Your task to perform on an android device: Search for the best rated coffee table on Target. Image 0: 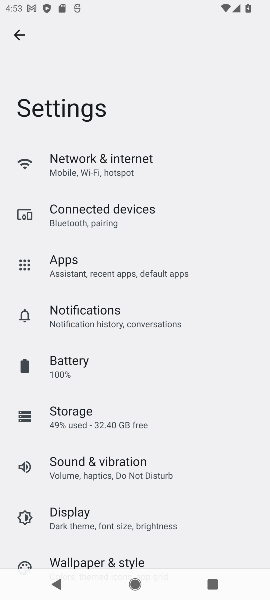
Step 0: press home button
Your task to perform on an android device: Search for the best rated coffee table on Target. Image 1: 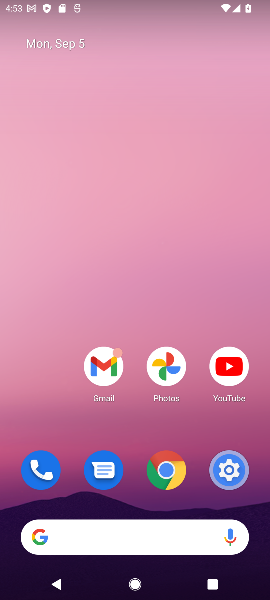
Step 1: click (176, 479)
Your task to perform on an android device: Search for the best rated coffee table on Target. Image 2: 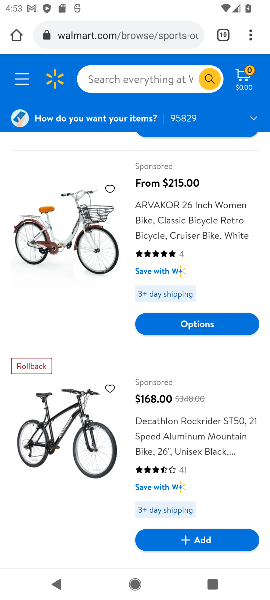
Step 2: click (103, 28)
Your task to perform on an android device: Search for the best rated coffee table on Target. Image 3: 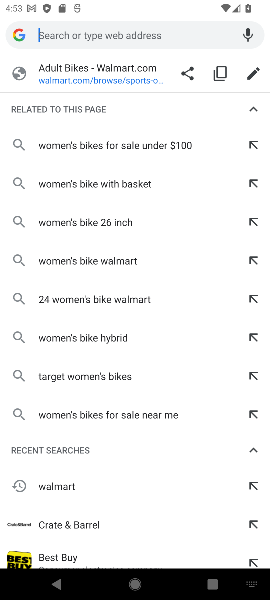
Step 3: type "target"
Your task to perform on an android device: Search for the best rated coffee table on Target. Image 4: 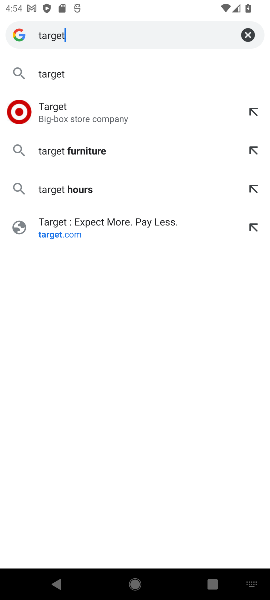
Step 4: click (80, 223)
Your task to perform on an android device: Search for the best rated coffee table on Target. Image 5: 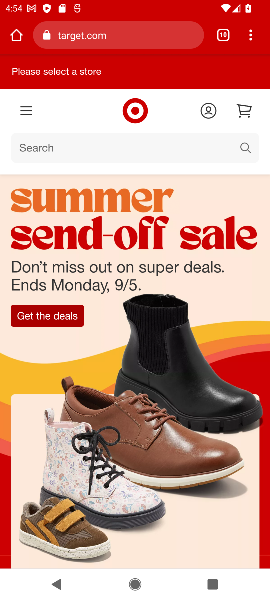
Step 5: click (99, 147)
Your task to perform on an android device: Search for the best rated coffee table on Target. Image 6: 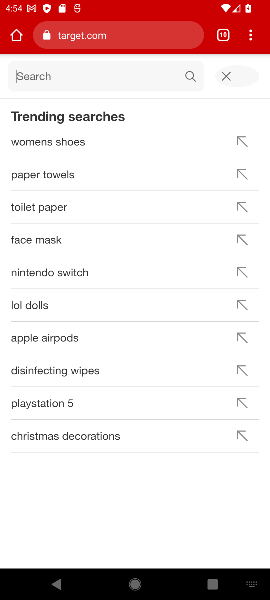
Step 6: type "coffee table"
Your task to perform on an android device: Search for the best rated coffee table on Target. Image 7: 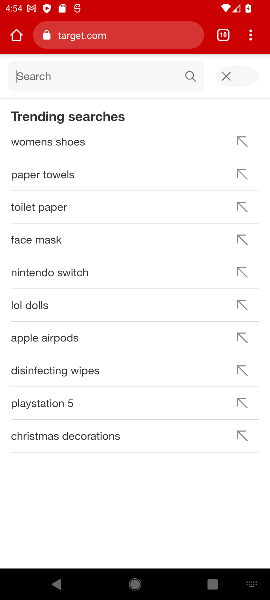
Step 7: type ""
Your task to perform on an android device: Search for the best rated coffee table on Target. Image 8: 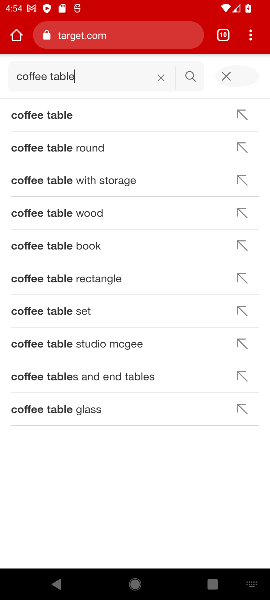
Step 8: press enter
Your task to perform on an android device: Search for the best rated coffee table on Target. Image 9: 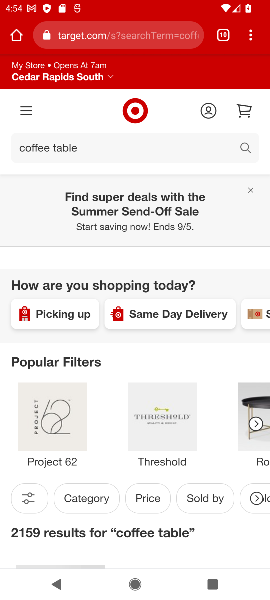
Step 9: drag from (124, 336) to (142, 206)
Your task to perform on an android device: Search for the best rated coffee table on Target. Image 10: 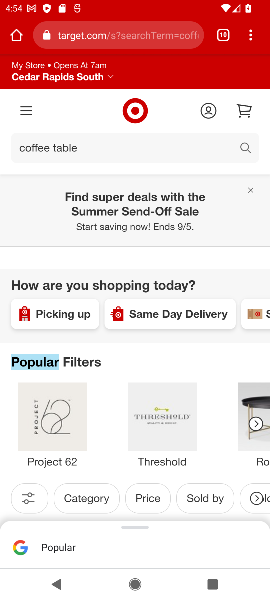
Step 10: click (30, 494)
Your task to perform on an android device: Search for the best rated coffee table on Target. Image 11: 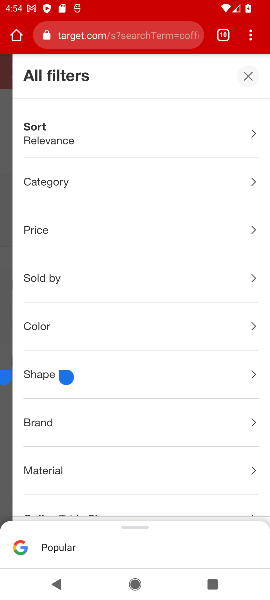
Step 11: drag from (145, 450) to (189, 127)
Your task to perform on an android device: Search for the best rated coffee table on Target. Image 12: 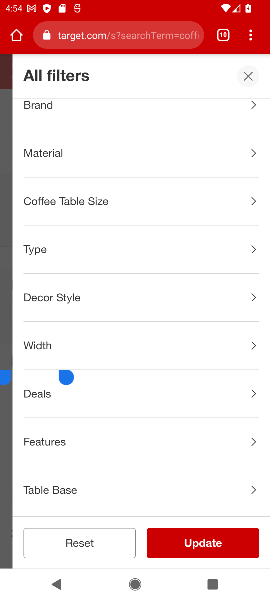
Step 12: drag from (174, 421) to (184, 160)
Your task to perform on an android device: Search for the best rated coffee table on Target. Image 13: 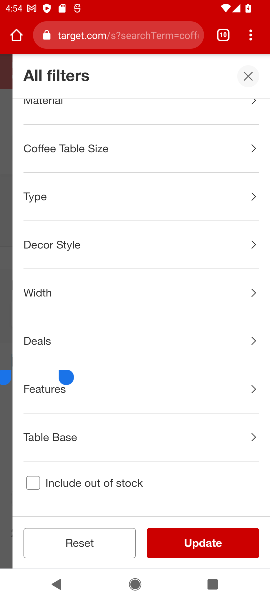
Step 13: drag from (184, 161) to (92, 598)
Your task to perform on an android device: Search for the best rated coffee table on Target. Image 14: 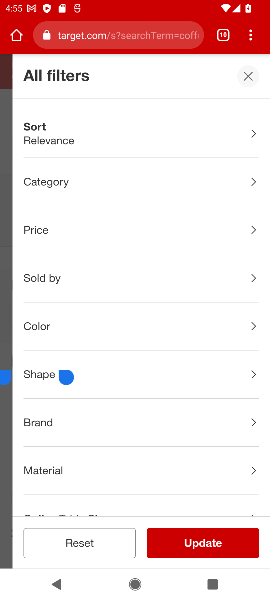
Step 14: click (259, 136)
Your task to perform on an android device: Search for the best rated coffee table on Target. Image 15: 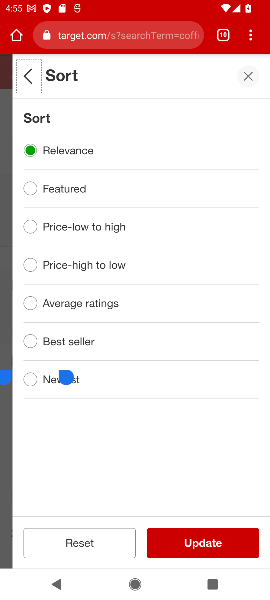
Step 15: click (253, 131)
Your task to perform on an android device: Search for the best rated coffee table on Target. Image 16: 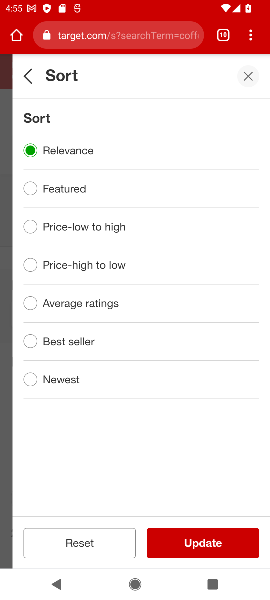
Step 16: click (63, 349)
Your task to perform on an android device: Search for the best rated coffee table on Target. Image 17: 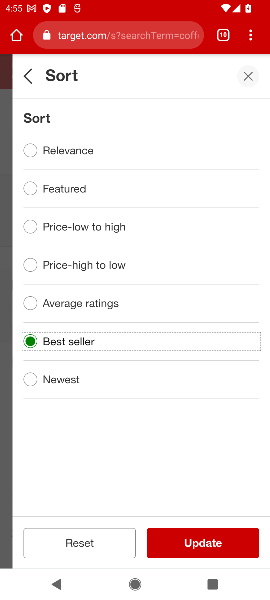
Step 17: click (188, 552)
Your task to perform on an android device: Search for the best rated coffee table on Target. Image 18: 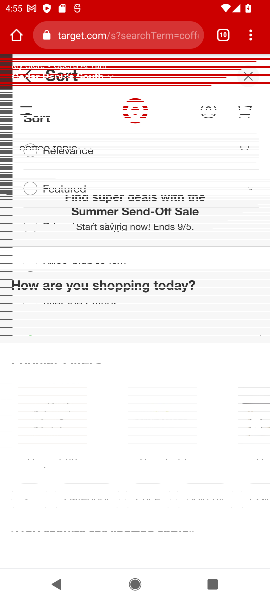
Step 18: drag from (198, 392) to (207, 340)
Your task to perform on an android device: Search for the best rated coffee table on Target. Image 19: 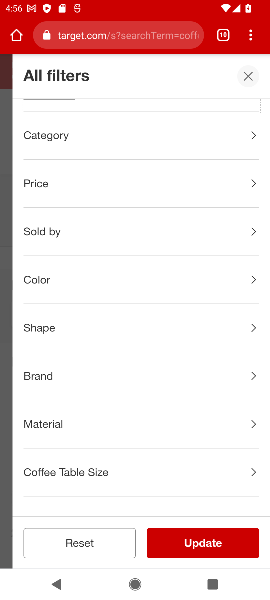
Step 19: click (257, 540)
Your task to perform on an android device: Search for the best rated coffee table on Target. Image 20: 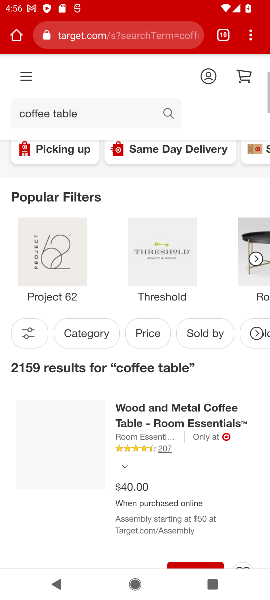
Step 20: task complete